Your task to perform on an android device: check android version Image 0: 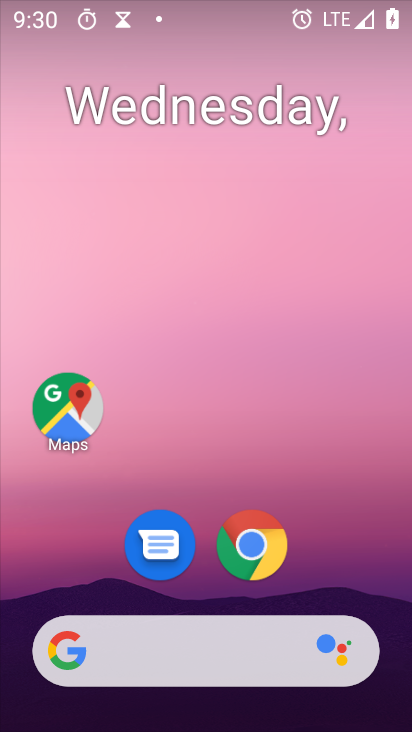
Step 0: press home button
Your task to perform on an android device: check android version Image 1: 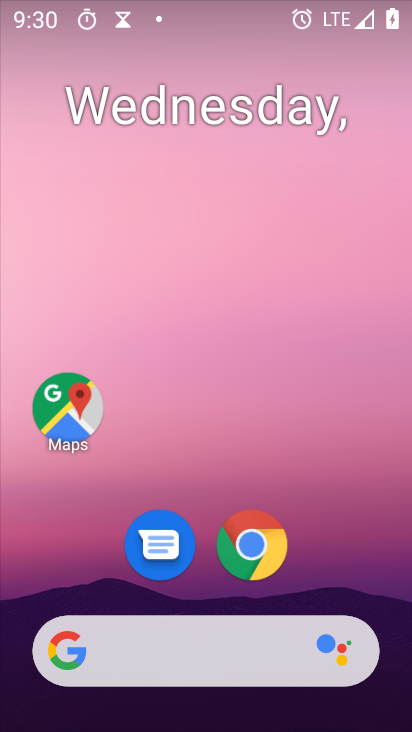
Step 1: drag from (219, 645) to (353, 102)
Your task to perform on an android device: check android version Image 2: 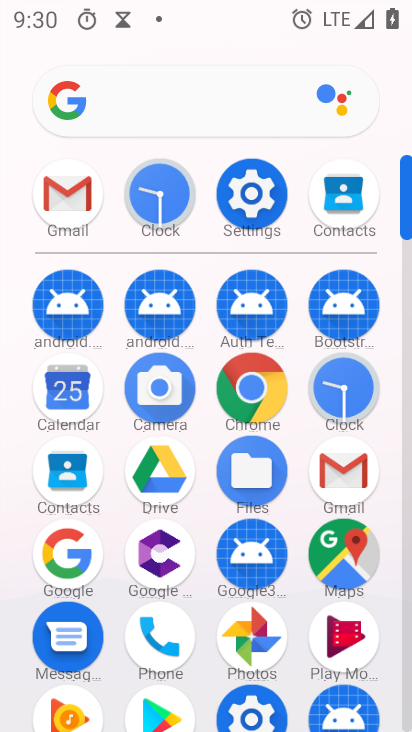
Step 2: click (256, 200)
Your task to perform on an android device: check android version Image 3: 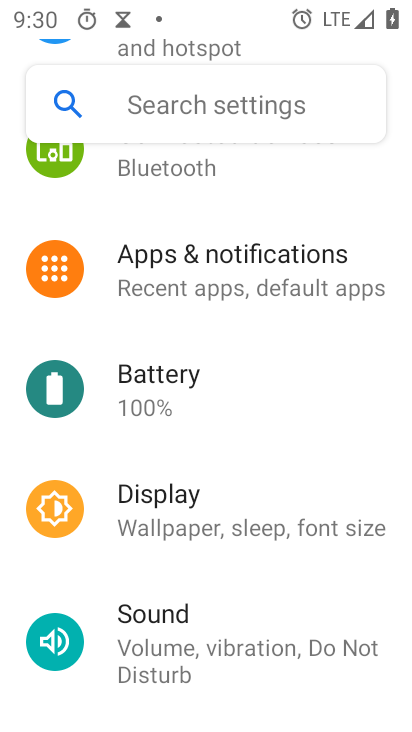
Step 3: drag from (270, 693) to (366, 41)
Your task to perform on an android device: check android version Image 4: 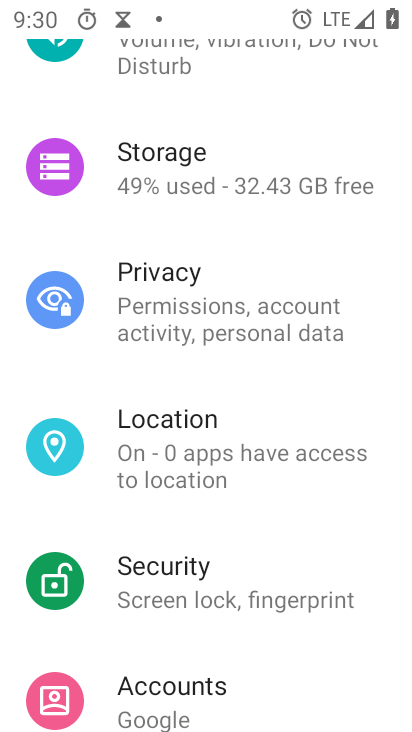
Step 4: drag from (277, 720) to (402, 23)
Your task to perform on an android device: check android version Image 5: 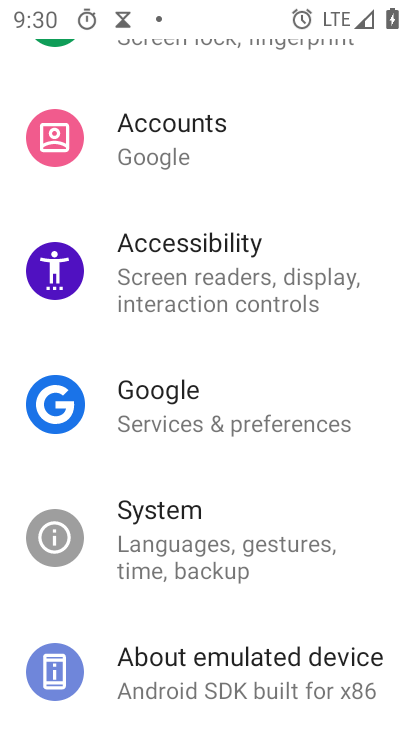
Step 5: drag from (244, 576) to (357, 158)
Your task to perform on an android device: check android version Image 6: 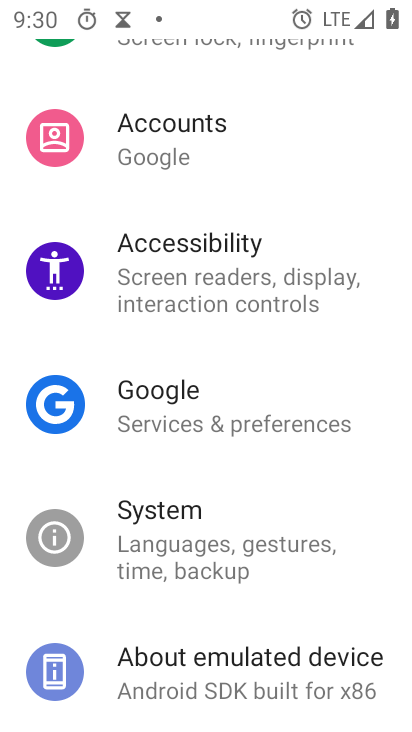
Step 6: click (198, 657)
Your task to perform on an android device: check android version Image 7: 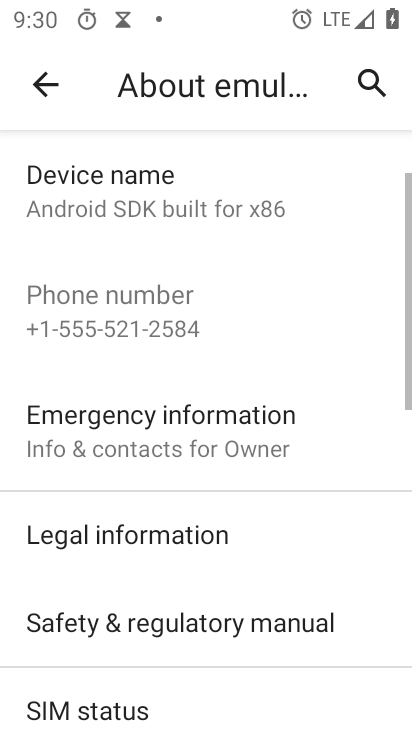
Step 7: drag from (227, 663) to (363, 165)
Your task to perform on an android device: check android version Image 8: 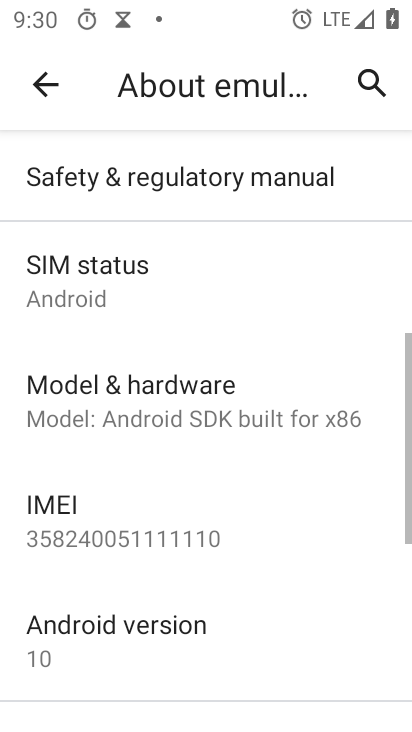
Step 8: drag from (229, 561) to (309, 280)
Your task to perform on an android device: check android version Image 9: 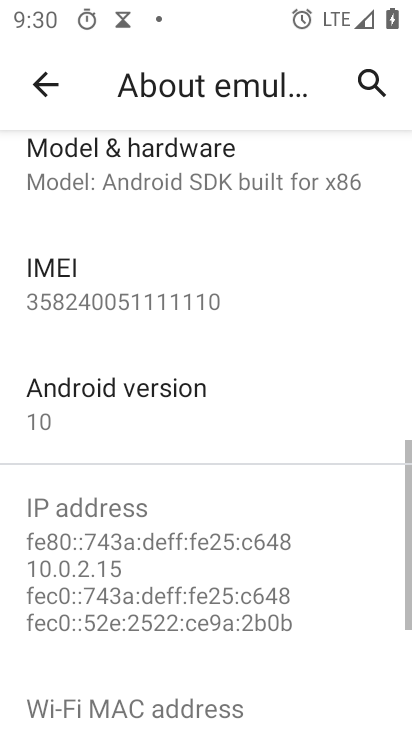
Step 9: click (169, 389)
Your task to perform on an android device: check android version Image 10: 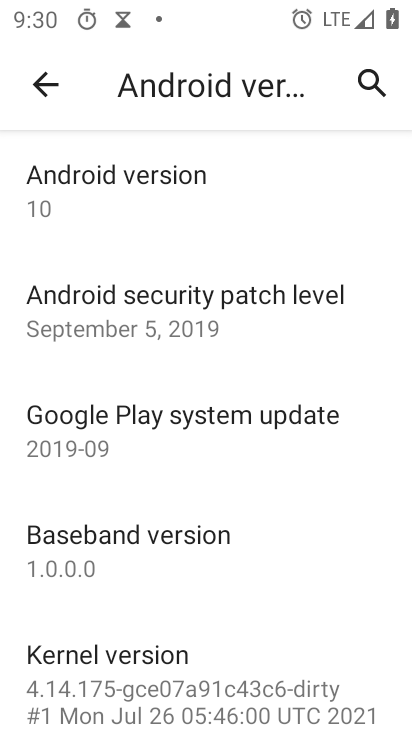
Step 10: task complete